Your task to perform on an android device: Do I have any events this weekend? Image 0: 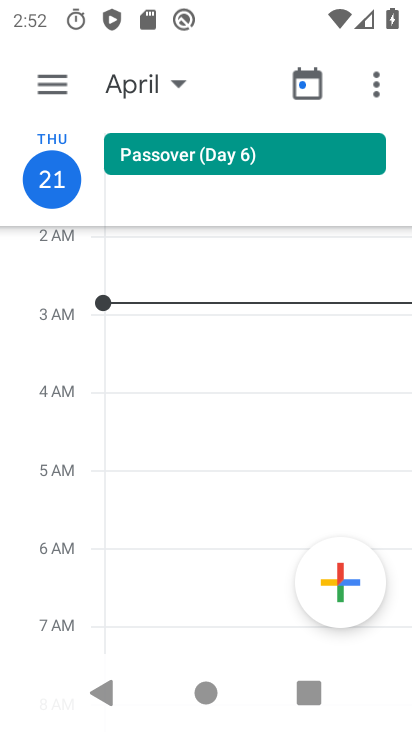
Step 0: click (172, 88)
Your task to perform on an android device: Do I have any events this weekend? Image 1: 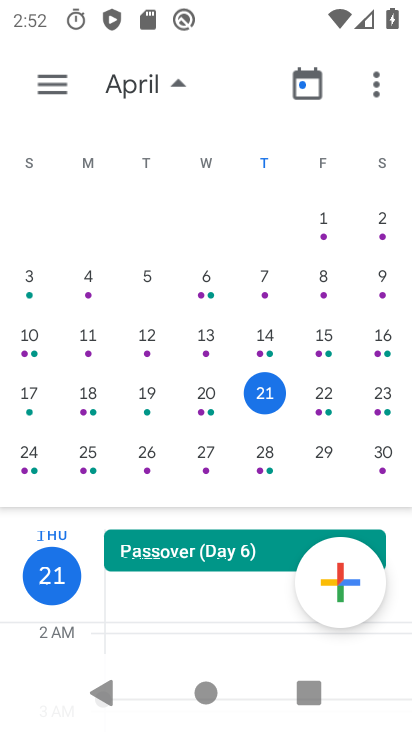
Step 1: click (384, 385)
Your task to perform on an android device: Do I have any events this weekend? Image 2: 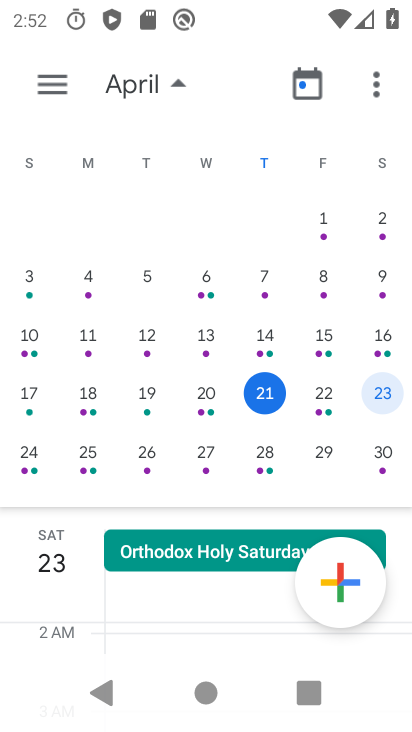
Step 2: task complete